Your task to perform on an android device: Show the shopping cart on costco. Add razer blade to the cart on costco Image 0: 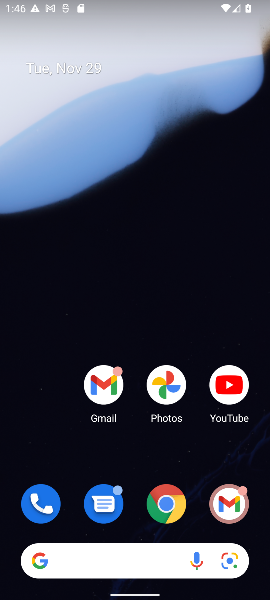
Step 0: click (174, 506)
Your task to perform on an android device: Show the shopping cart on costco. Add razer blade to the cart on costco Image 1: 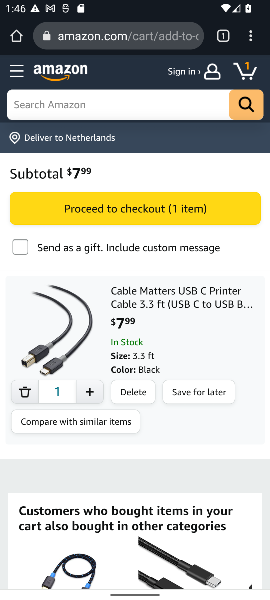
Step 1: click (80, 39)
Your task to perform on an android device: Show the shopping cart on costco. Add razer blade to the cart on costco Image 2: 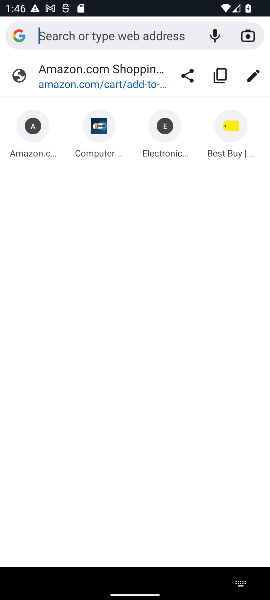
Step 2: type "costco.com"
Your task to perform on an android device: Show the shopping cart on costco. Add razer blade to the cart on costco Image 3: 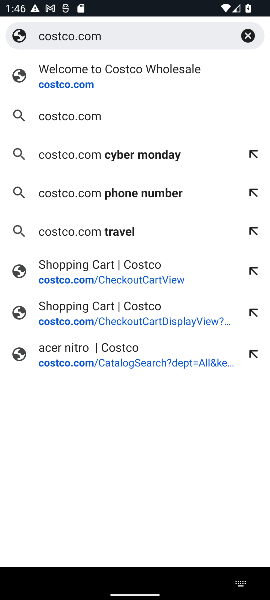
Step 3: click (62, 88)
Your task to perform on an android device: Show the shopping cart on costco. Add razer blade to the cart on costco Image 4: 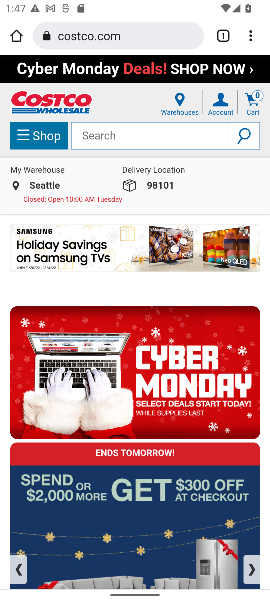
Step 4: click (251, 106)
Your task to perform on an android device: Show the shopping cart on costco. Add razer blade to the cart on costco Image 5: 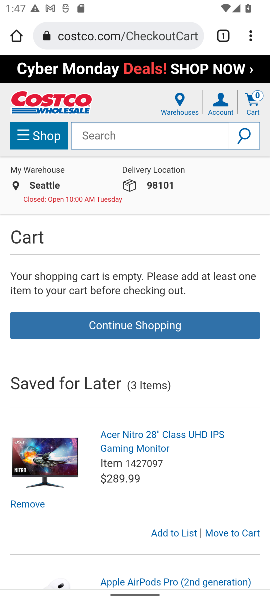
Step 5: click (108, 141)
Your task to perform on an android device: Show the shopping cart on costco. Add razer blade to the cart on costco Image 6: 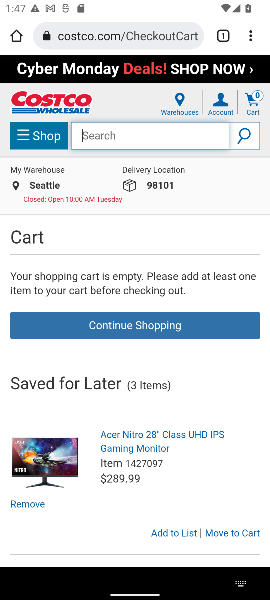
Step 6: type "razer blade"
Your task to perform on an android device: Show the shopping cart on costco. Add razer blade to the cart on costco Image 7: 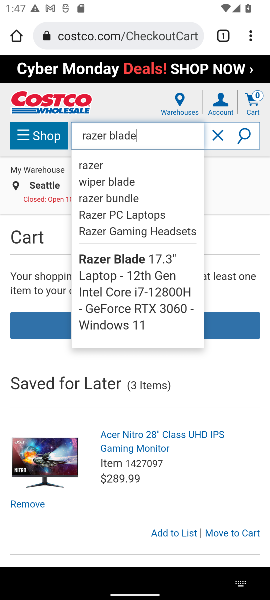
Step 7: click (243, 139)
Your task to perform on an android device: Show the shopping cart on costco. Add razer blade to the cart on costco Image 8: 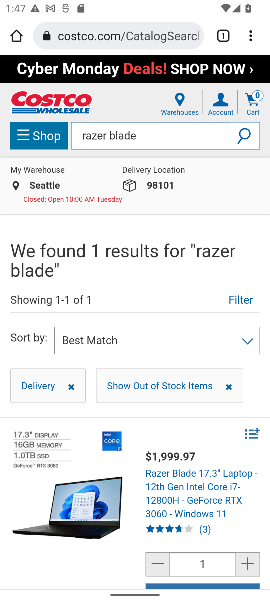
Step 8: drag from (111, 488) to (142, 403)
Your task to perform on an android device: Show the shopping cart on costco. Add razer blade to the cart on costco Image 9: 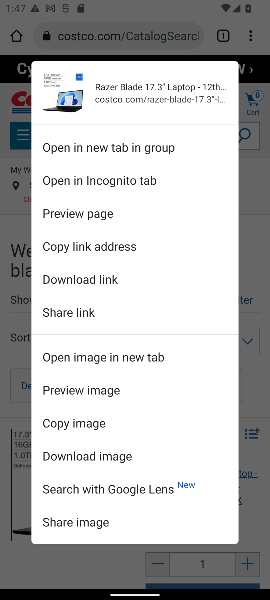
Step 9: click (249, 380)
Your task to perform on an android device: Show the shopping cart on costco. Add razer blade to the cart on costco Image 10: 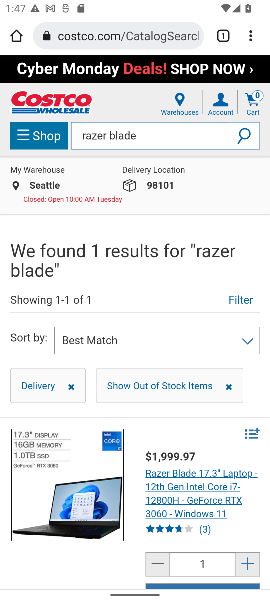
Step 10: drag from (155, 443) to (162, 332)
Your task to perform on an android device: Show the shopping cart on costco. Add razer blade to the cart on costco Image 11: 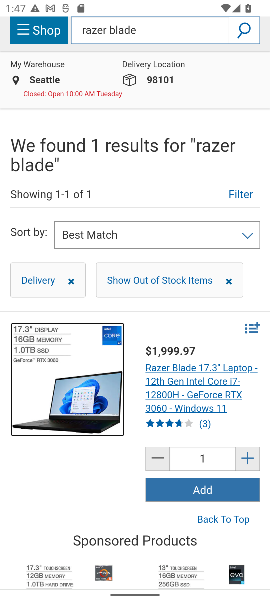
Step 11: click (195, 493)
Your task to perform on an android device: Show the shopping cart on costco. Add razer blade to the cart on costco Image 12: 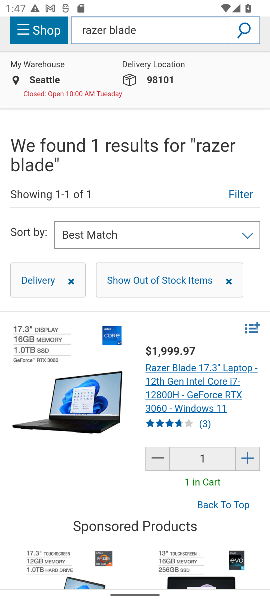
Step 12: task complete